Your task to perform on an android device: turn on the 12-hour format for clock Image 0: 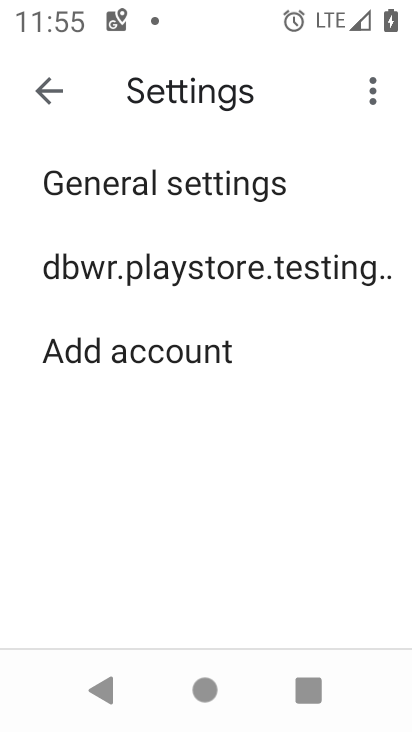
Step 0: click (405, 500)
Your task to perform on an android device: turn on the 12-hour format for clock Image 1: 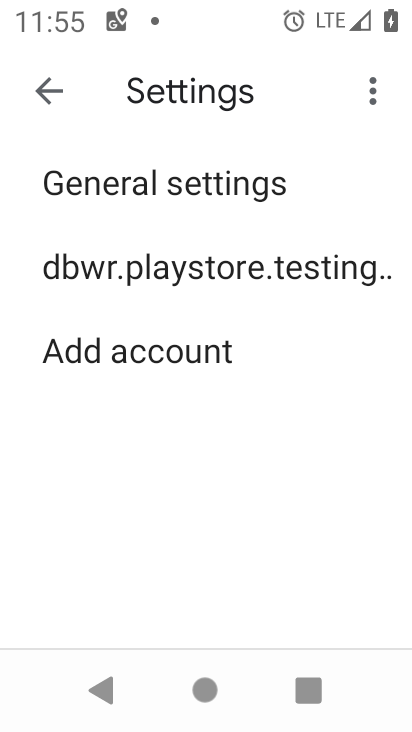
Step 1: press home button
Your task to perform on an android device: turn on the 12-hour format for clock Image 2: 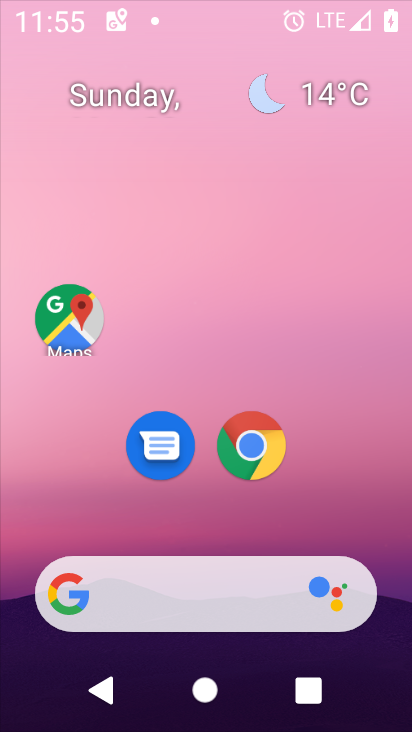
Step 2: drag from (229, 544) to (366, 146)
Your task to perform on an android device: turn on the 12-hour format for clock Image 3: 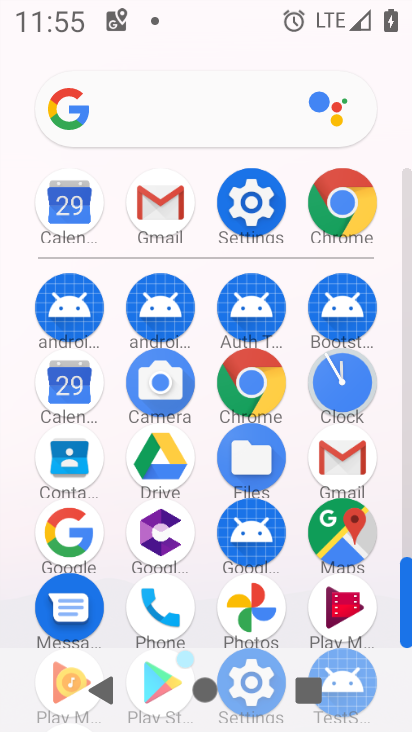
Step 3: click (350, 388)
Your task to perform on an android device: turn on the 12-hour format for clock Image 4: 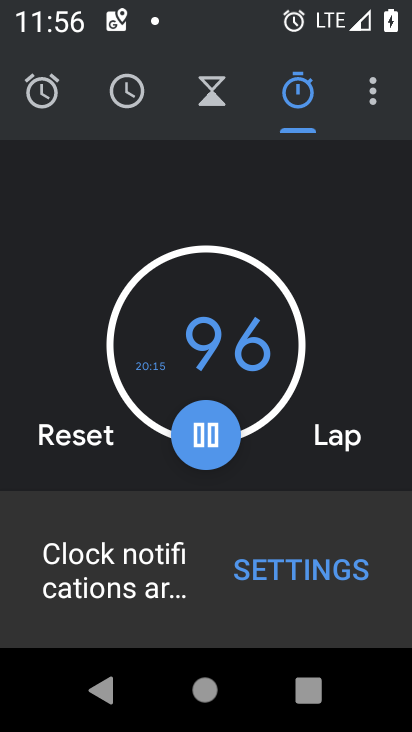
Step 4: drag from (372, 87) to (219, 177)
Your task to perform on an android device: turn on the 12-hour format for clock Image 5: 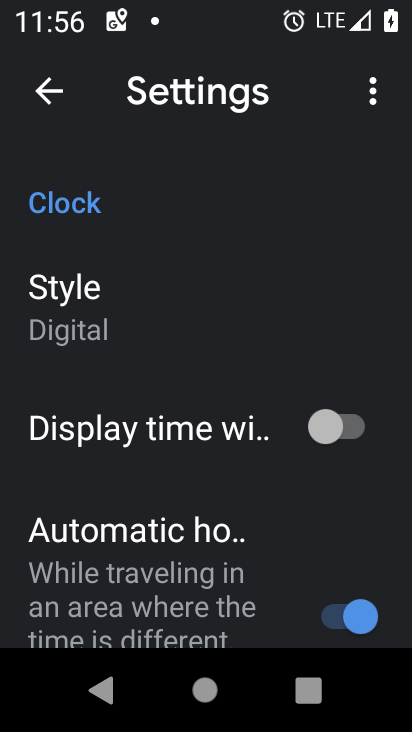
Step 5: drag from (176, 521) to (258, 220)
Your task to perform on an android device: turn on the 12-hour format for clock Image 6: 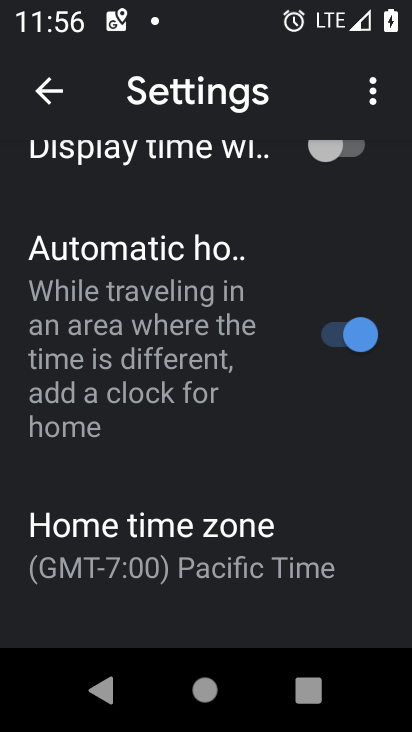
Step 6: drag from (257, 556) to (348, 153)
Your task to perform on an android device: turn on the 12-hour format for clock Image 7: 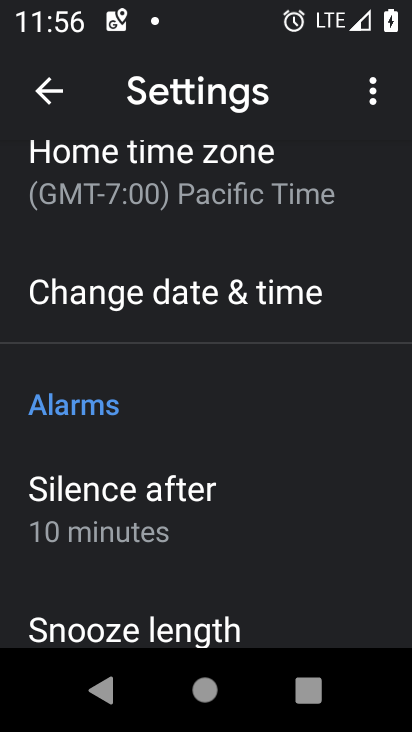
Step 7: click (232, 309)
Your task to perform on an android device: turn on the 12-hour format for clock Image 8: 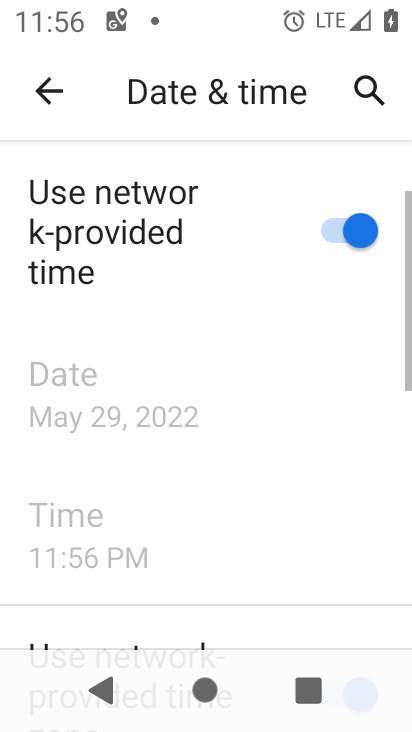
Step 8: task complete